Your task to perform on an android device: Open location settings Image 0: 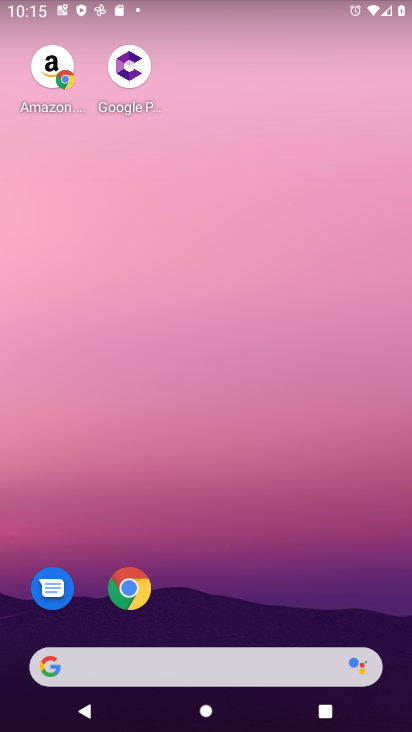
Step 0: drag from (225, 534) to (190, 8)
Your task to perform on an android device: Open location settings Image 1: 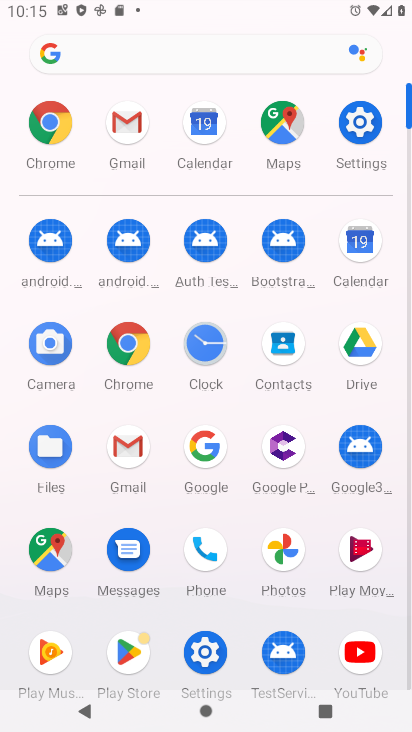
Step 1: click (356, 110)
Your task to perform on an android device: Open location settings Image 2: 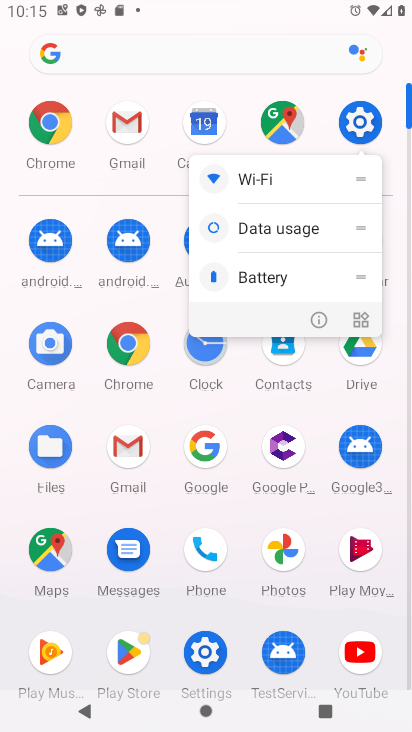
Step 2: click (356, 109)
Your task to perform on an android device: Open location settings Image 3: 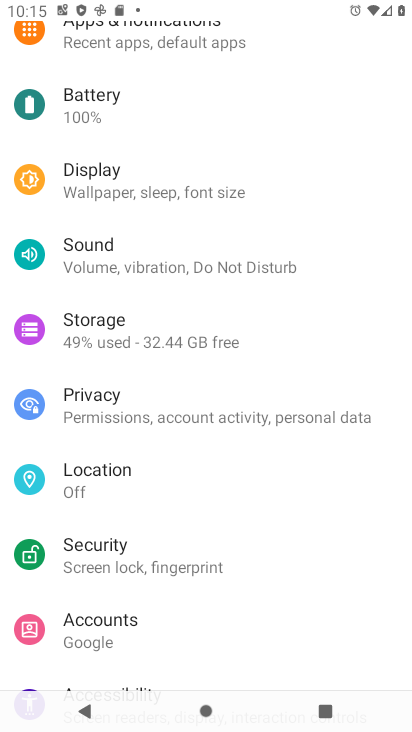
Step 3: click (64, 495)
Your task to perform on an android device: Open location settings Image 4: 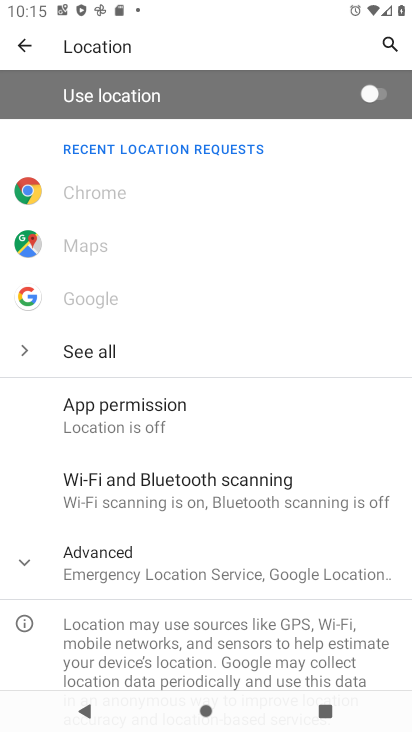
Step 4: task complete